Your task to perform on an android device: View the shopping cart on walmart. Add "logitech g pro" to the cart on walmart, then select checkout. Image 0: 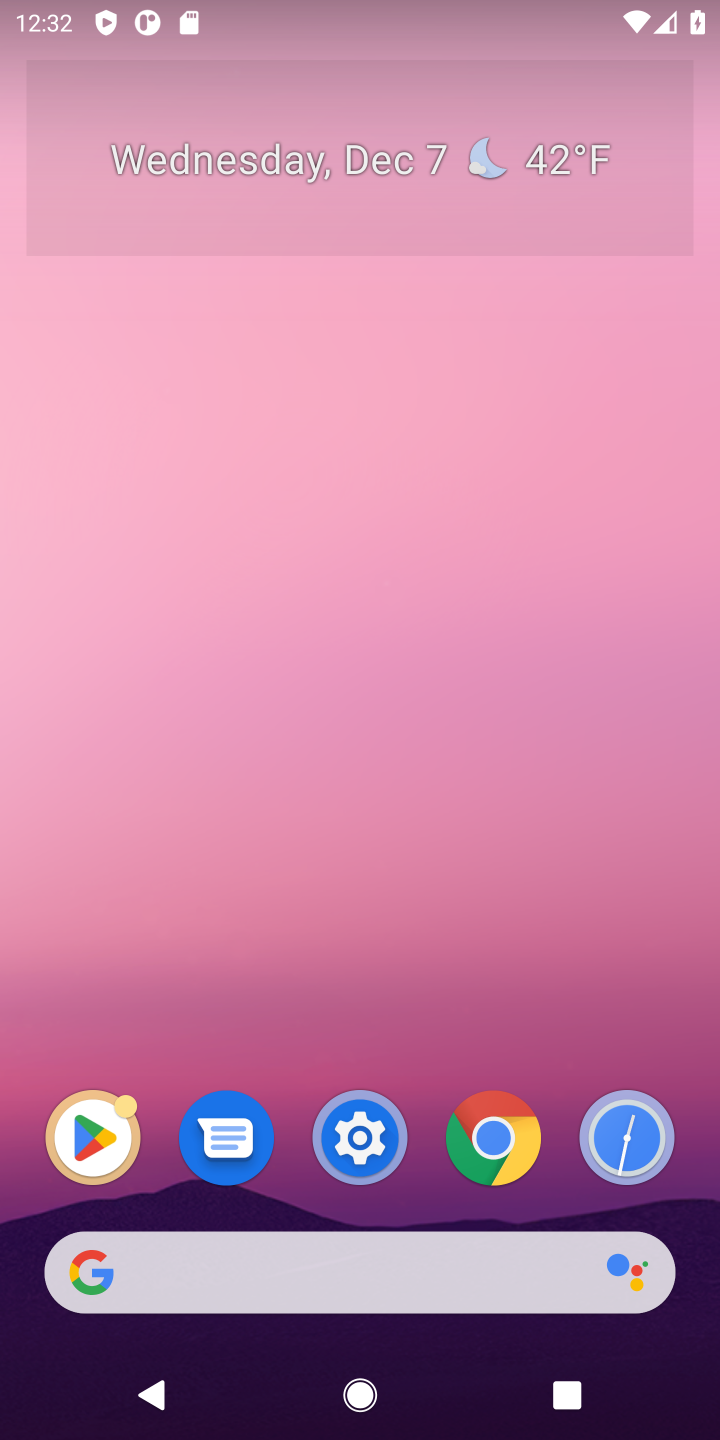
Step 0: click (307, 1283)
Your task to perform on an android device: View the shopping cart on walmart. Add "logitech g pro" to the cart on walmart, then select checkout. Image 1: 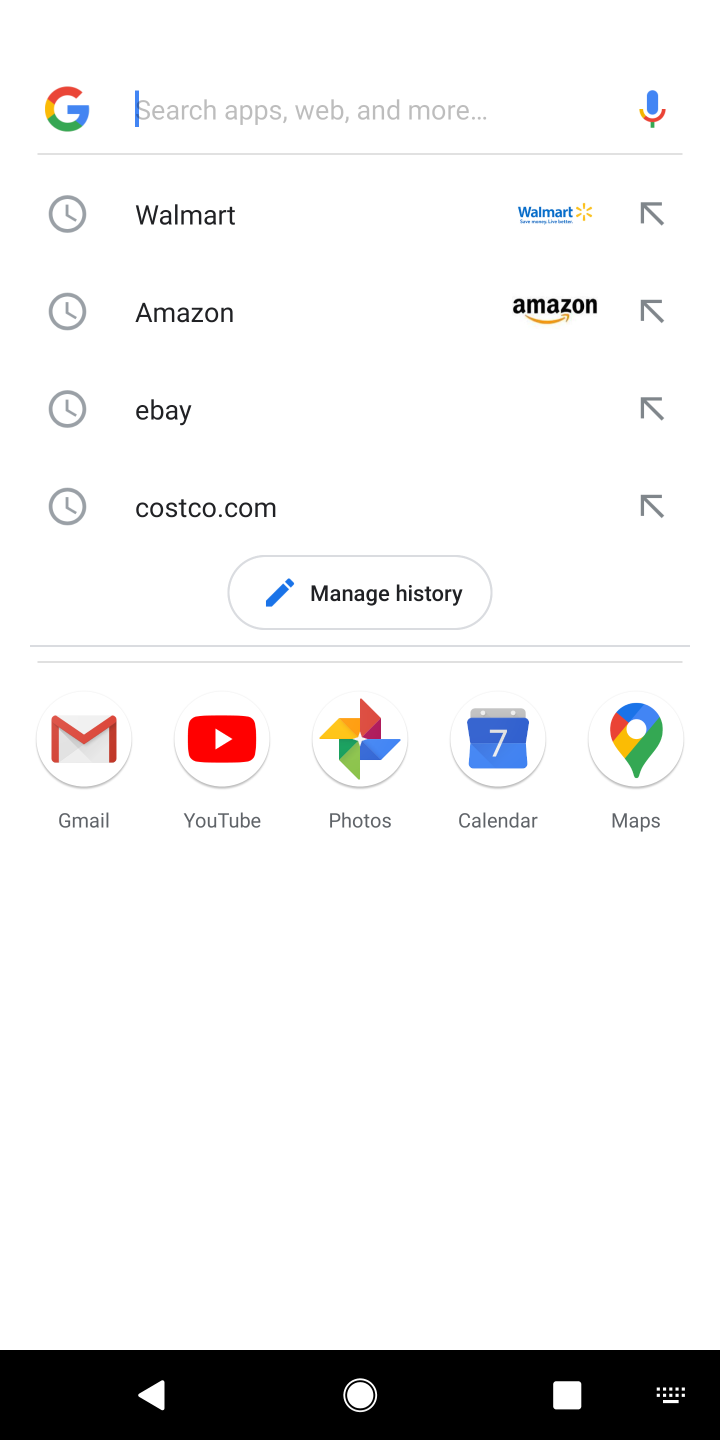
Step 1: click (137, 212)
Your task to perform on an android device: View the shopping cart on walmart. Add "logitech g pro" to the cart on walmart, then select checkout. Image 2: 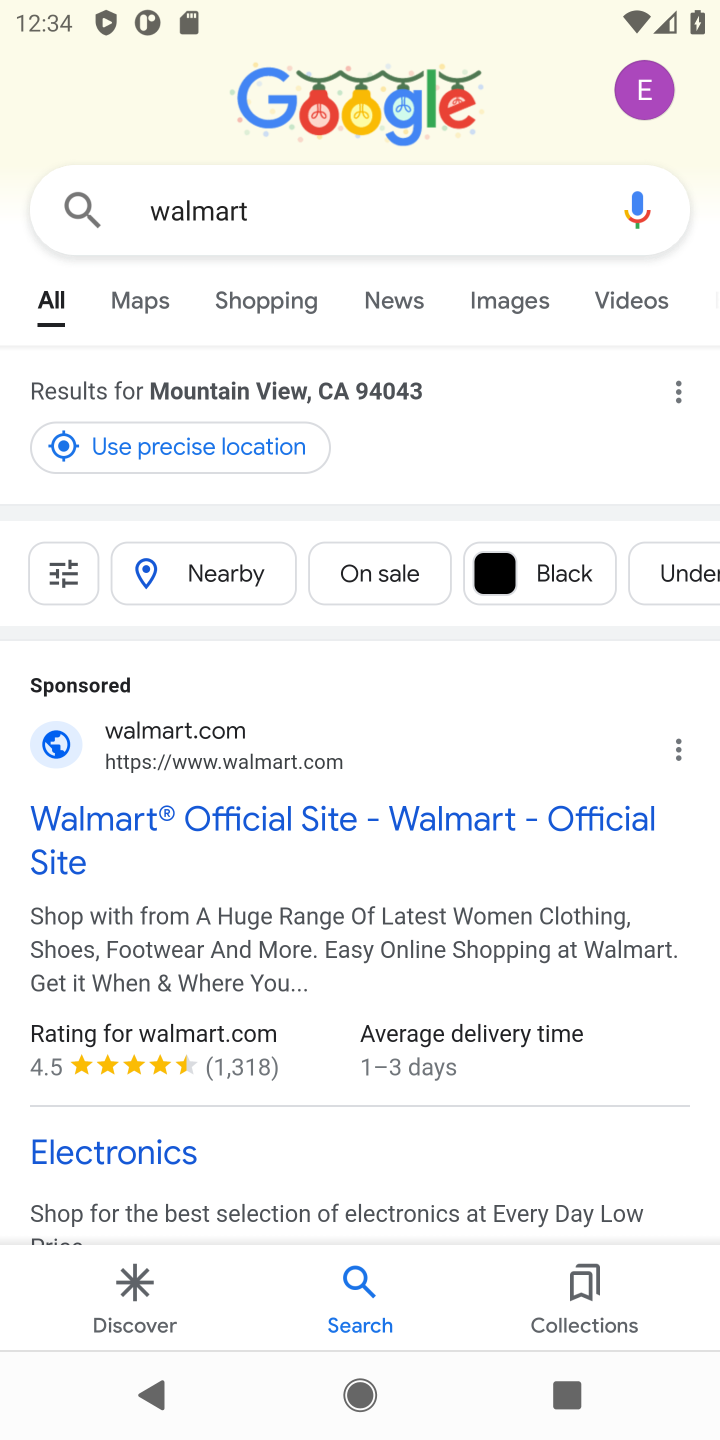
Step 2: click (177, 854)
Your task to perform on an android device: View the shopping cart on walmart. Add "logitech g pro" to the cart on walmart, then select checkout. Image 3: 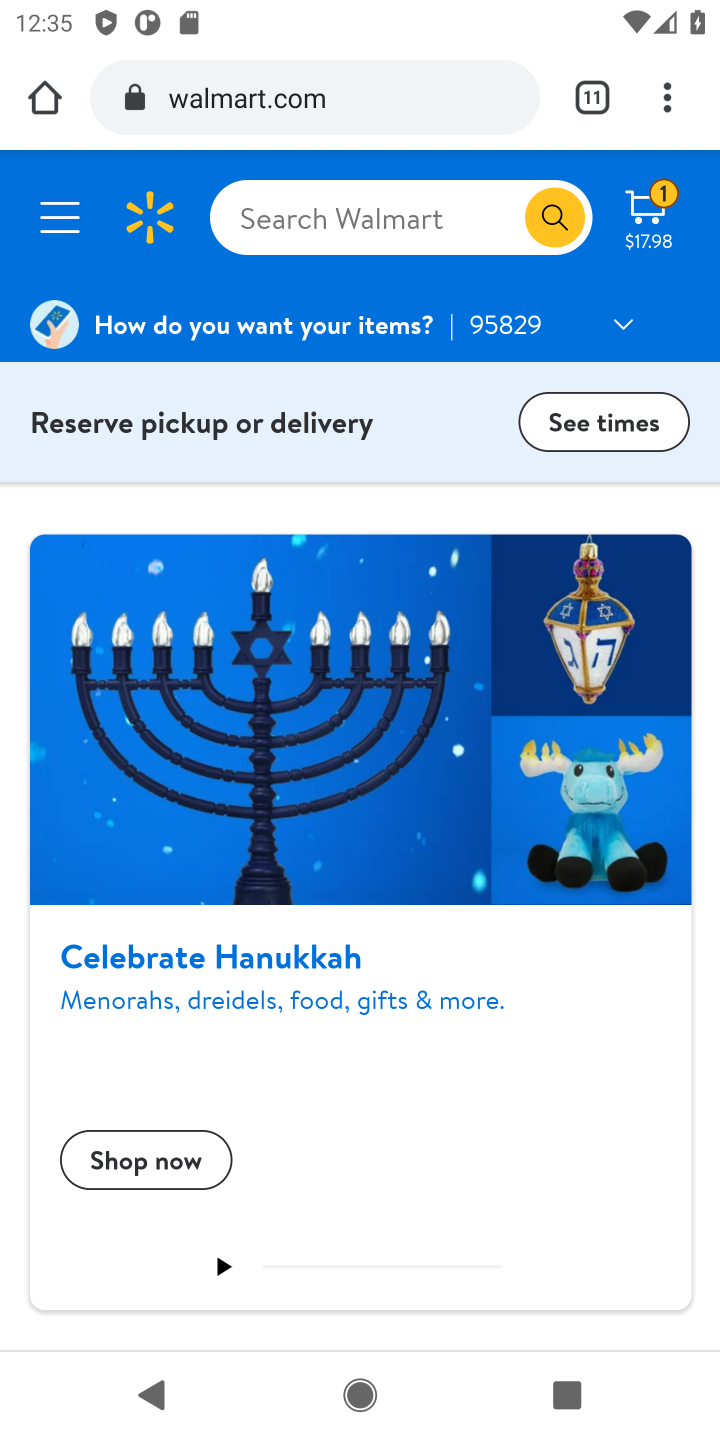
Step 3: click (307, 232)
Your task to perform on an android device: View the shopping cart on walmart. Add "logitech g pro" to the cart on walmart, then select checkout. Image 4: 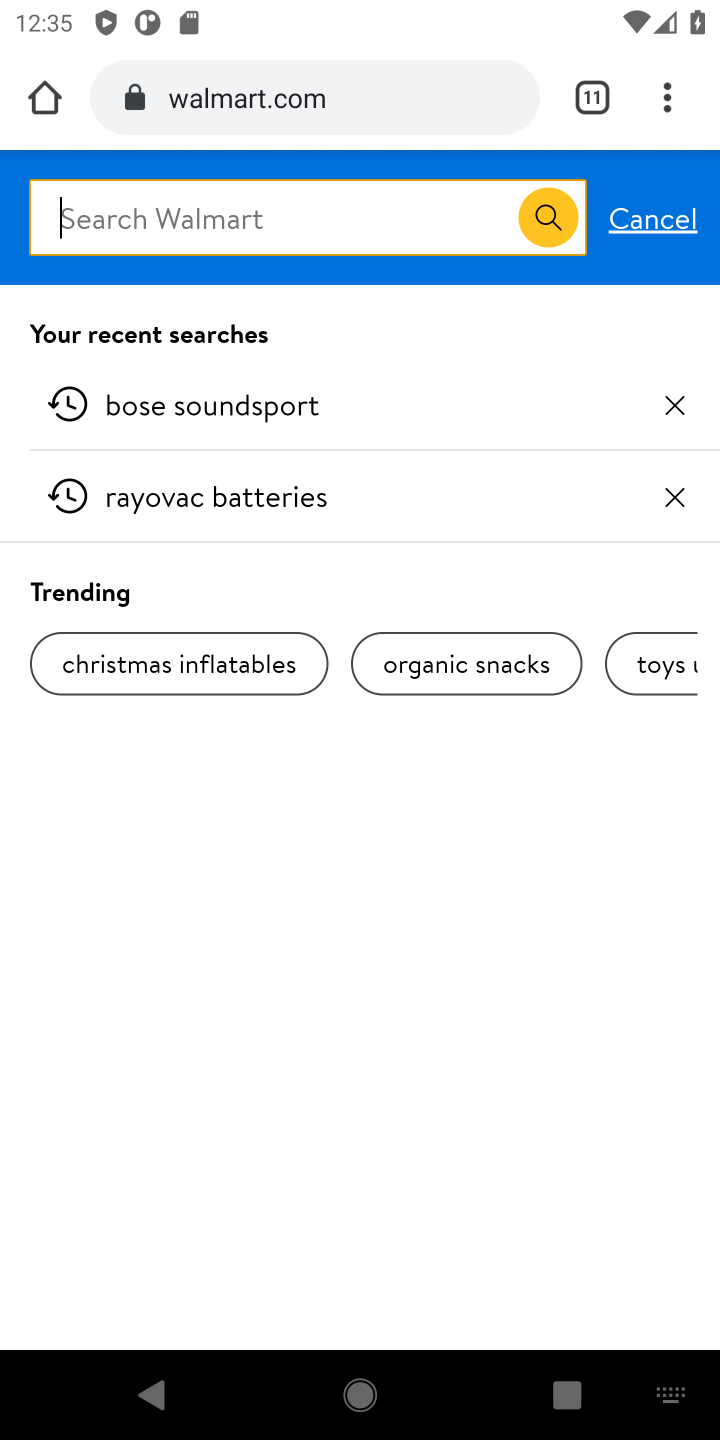
Step 4: type "logitech"
Your task to perform on an android device: View the shopping cart on walmart. Add "logitech g pro" to the cart on walmart, then select checkout. Image 5: 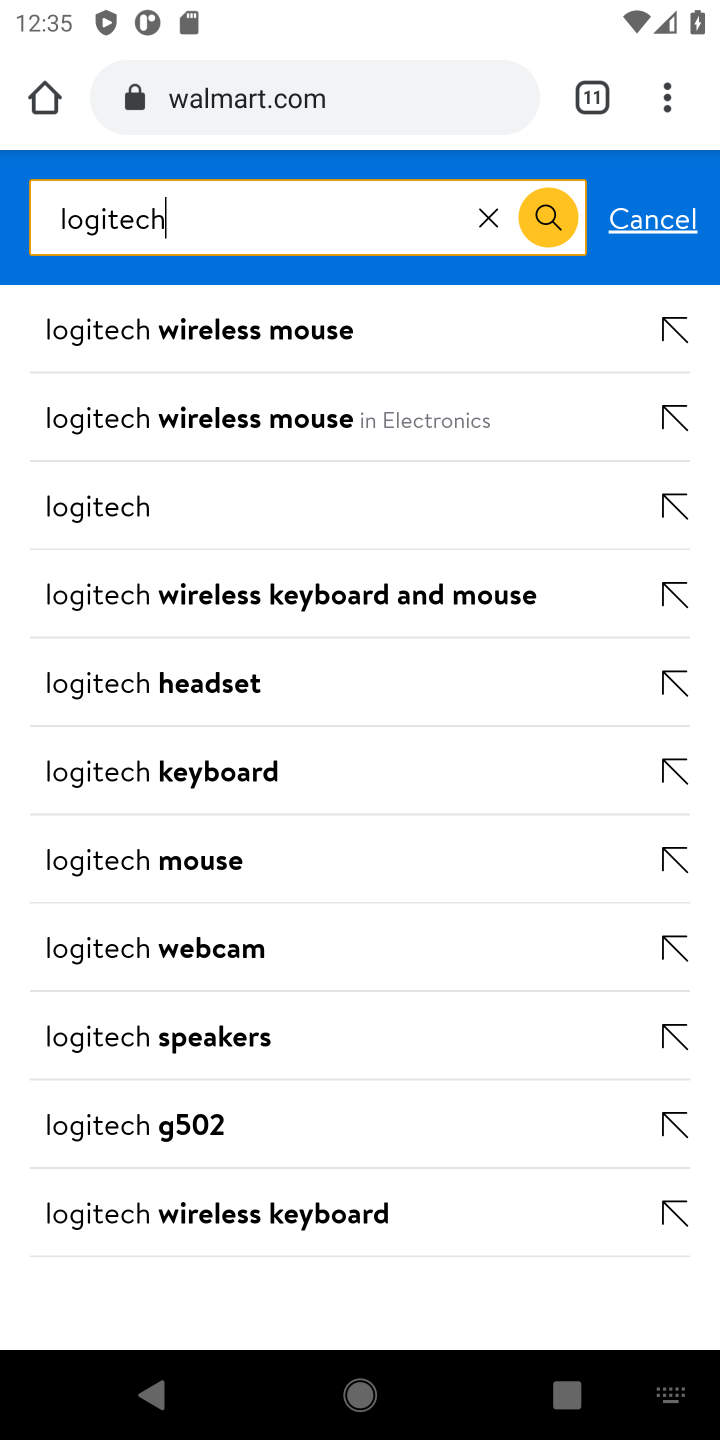
Step 5: click (241, 331)
Your task to perform on an android device: View the shopping cart on walmart. Add "logitech g pro" to the cart on walmart, then select checkout. Image 6: 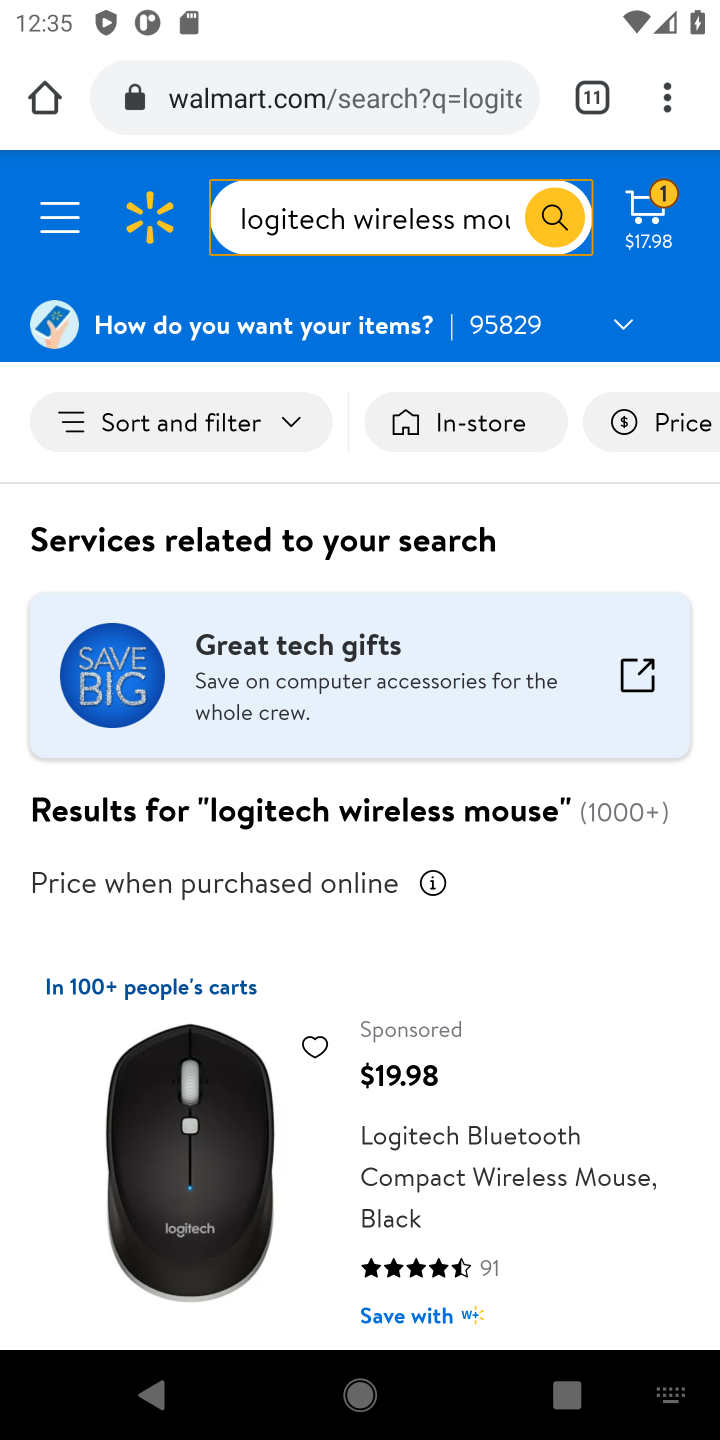
Step 6: drag from (636, 1293) to (419, 440)
Your task to perform on an android device: View the shopping cart on walmart. Add "logitech g pro" to the cart on walmart, then select checkout. Image 7: 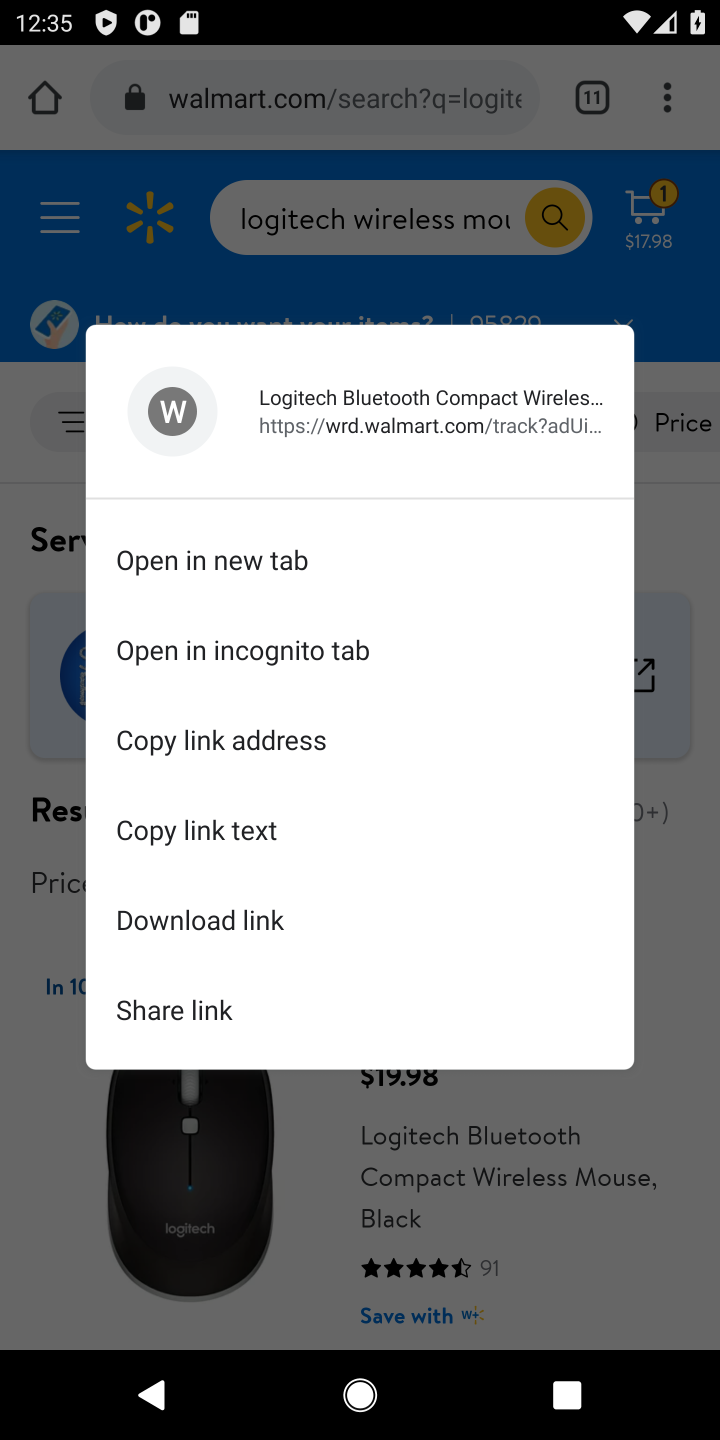
Step 7: click (685, 1010)
Your task to perform on an android device: View the shopping cart on walmart. Add "logitech g pro" to the cart on walmart, then select checkout. Image 8: 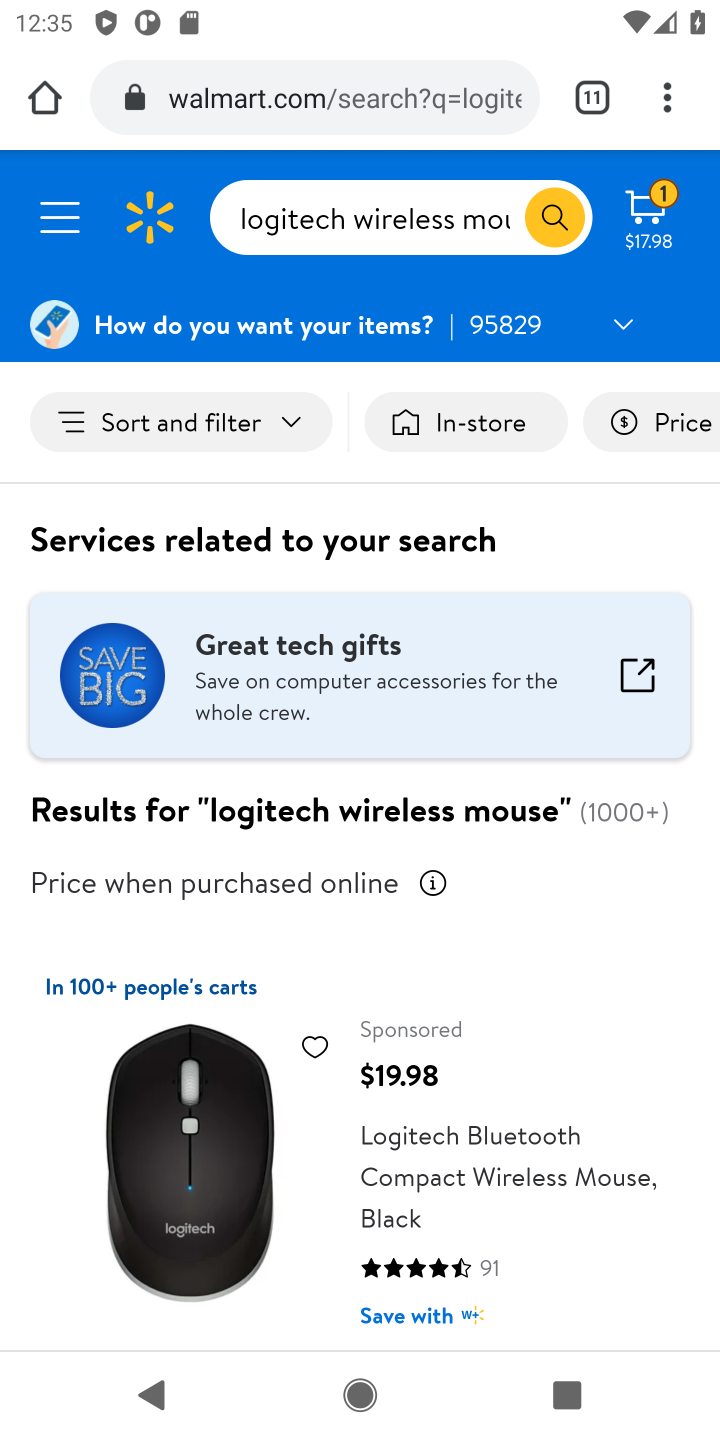
Step 8: drag from (632, 1080) to (470, 338)
Your task to perform on an android device: View the shopping cart on walmart. Add "logitech g pro" to the cart on walmart, then select checkout. Image 9: 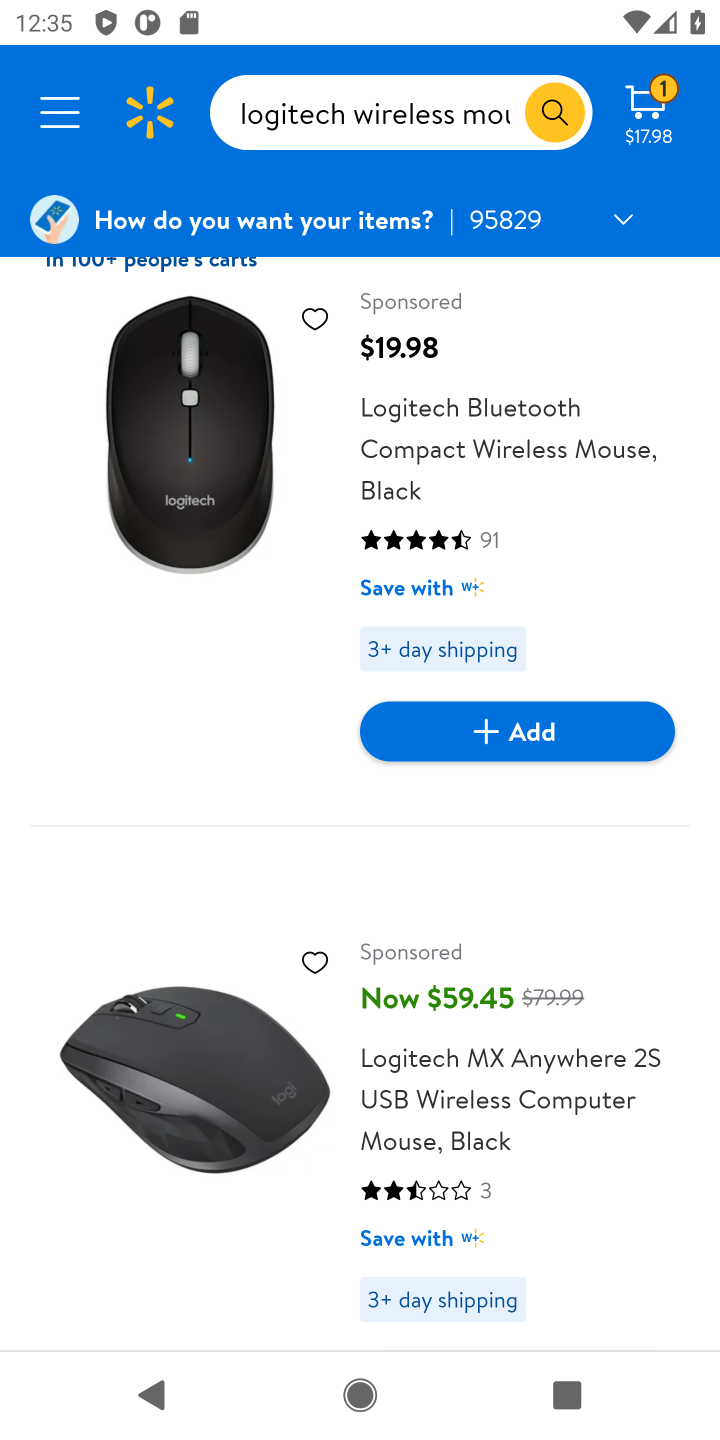
Step 9: click (438, 764)
Your task to perform on an android device: View the shopping cart on walmart. Add "logitech g pro" to the cart on walmart, then select checkout. Image 10: 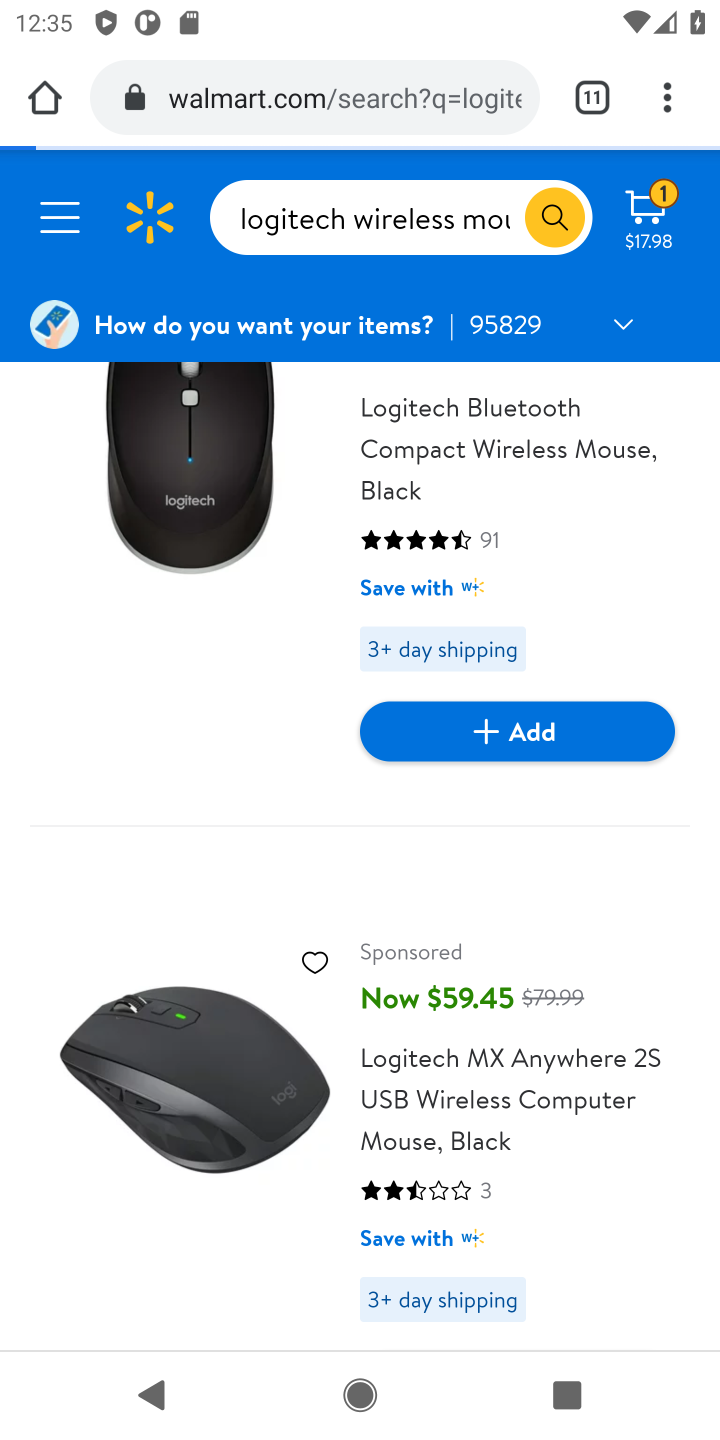
Step 10: task complete